Your task to perform on an android device: turn off picture-in-picture Image 0: 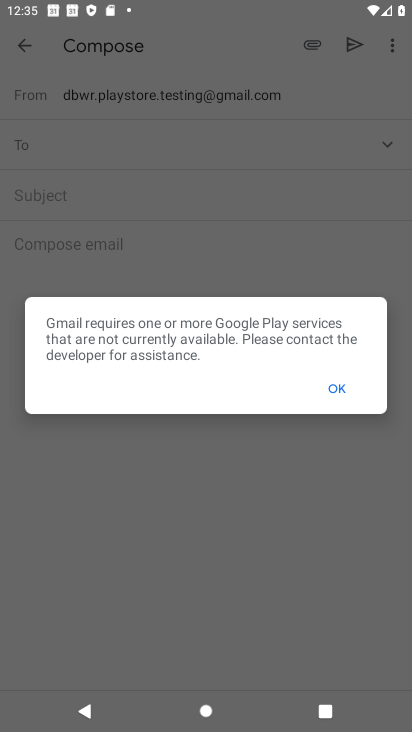
Step 0: click (322, 398)
Your task to perform on an android device: turn off picture-in-picture Image 1: 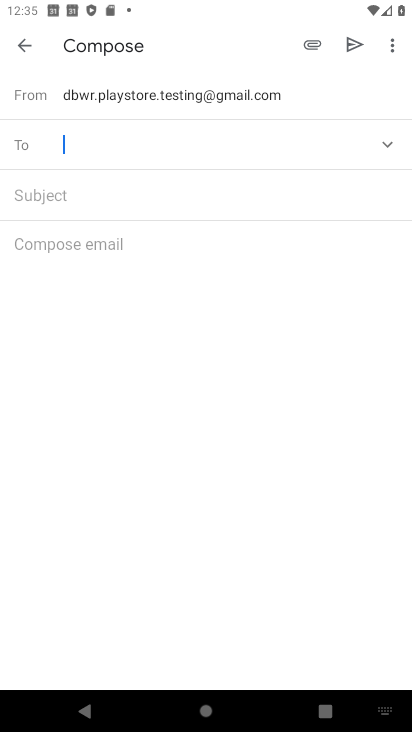
Step 1: press home button
Your task to perform on an android device: turn off picture-in-picture Image 2: 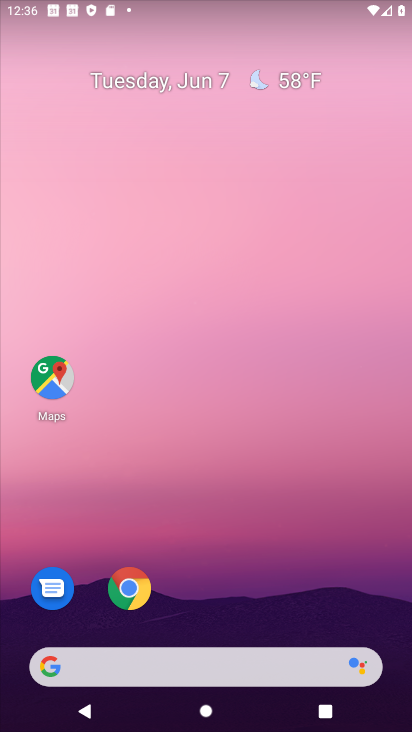
Step 2: drag from (288, 624) to (321, 219)
Your task to perform on an android device: turn off picture-in-picture Image 3: 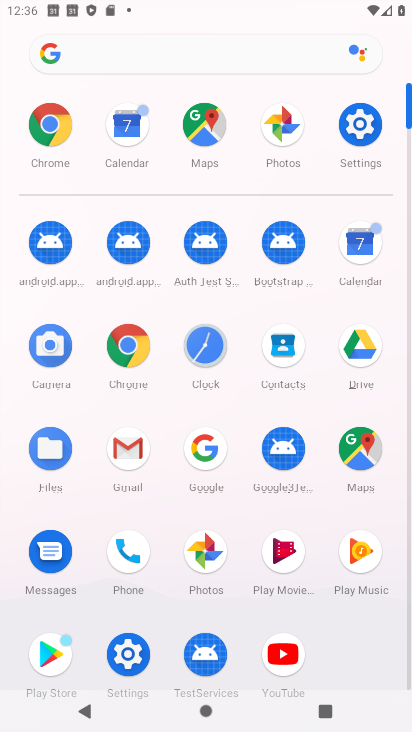
Step 3: click (341, 154)
Your task to perform on an android device: turn off picture-in-picture Image 4: 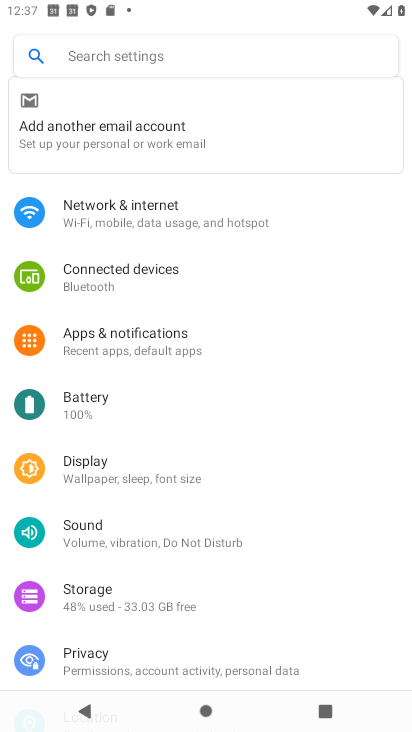
Step 4: task complete